Your task to perform on an android device: open app "VLC for Android" (install if not already installed) Image 0: 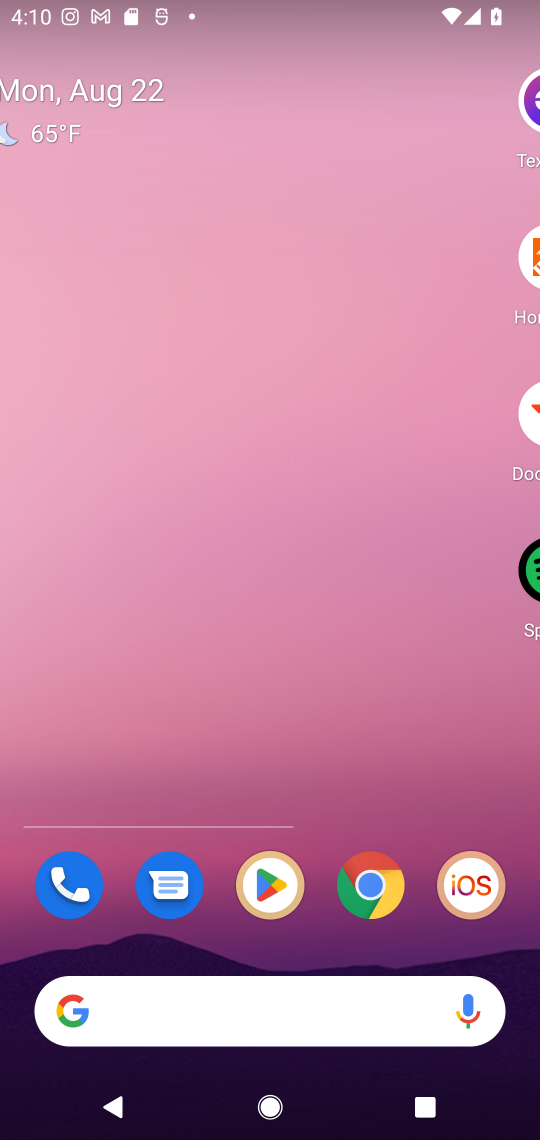
Step 0: press home button
Your task to perform on an android device: open app "VLC for Android" (install if not already installed) Image 1: 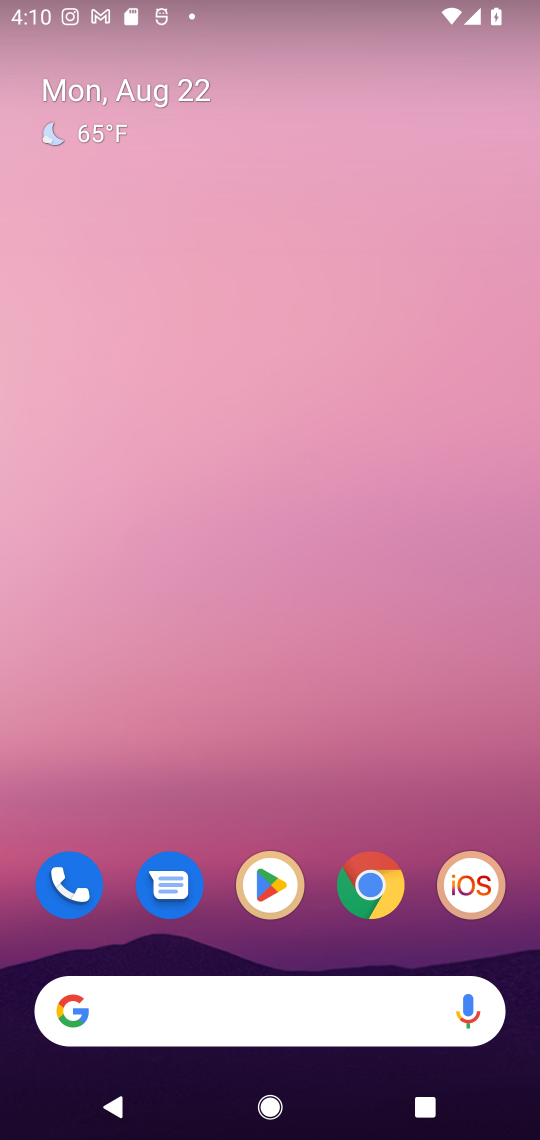
Step 1: click (263, 879)
Your task to perform on an android device: open app "VLC for Android" (install if not already installed) Image 2: 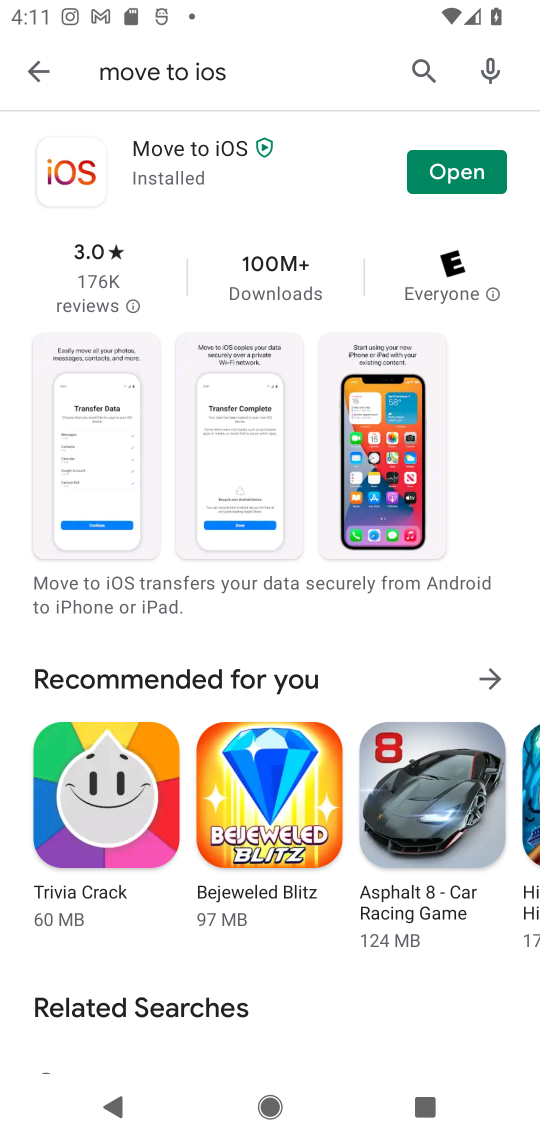
Step 2: click (421, 63)
Your task to perform on an android device: open app "VLC for Android" (install if not already installed) Image 3: 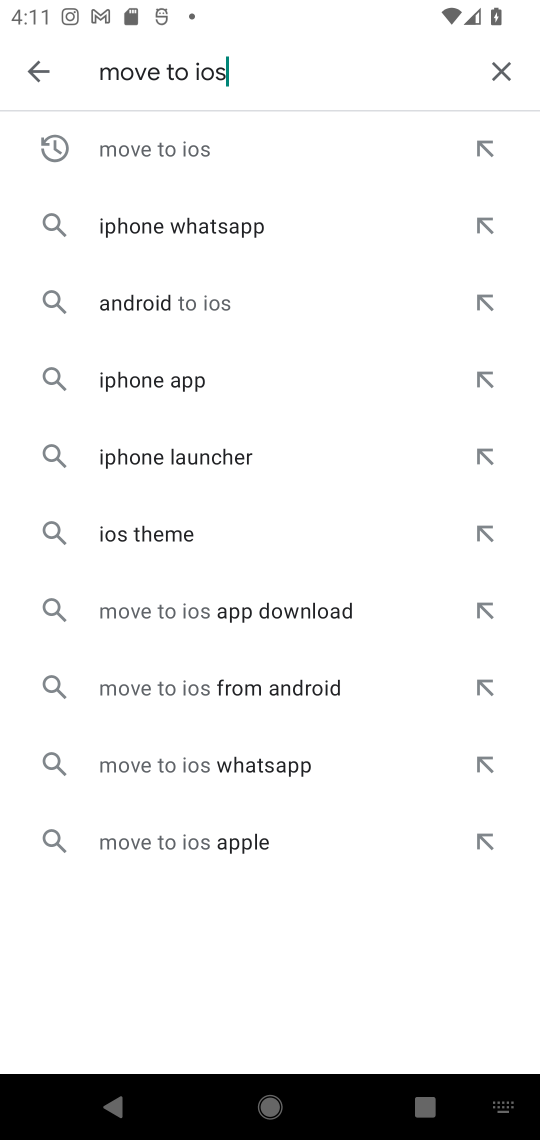
Step 3: click (500, 70)
Your task to perform on an android device: open app "VLC for Android" (install if not already installed) Image 4: 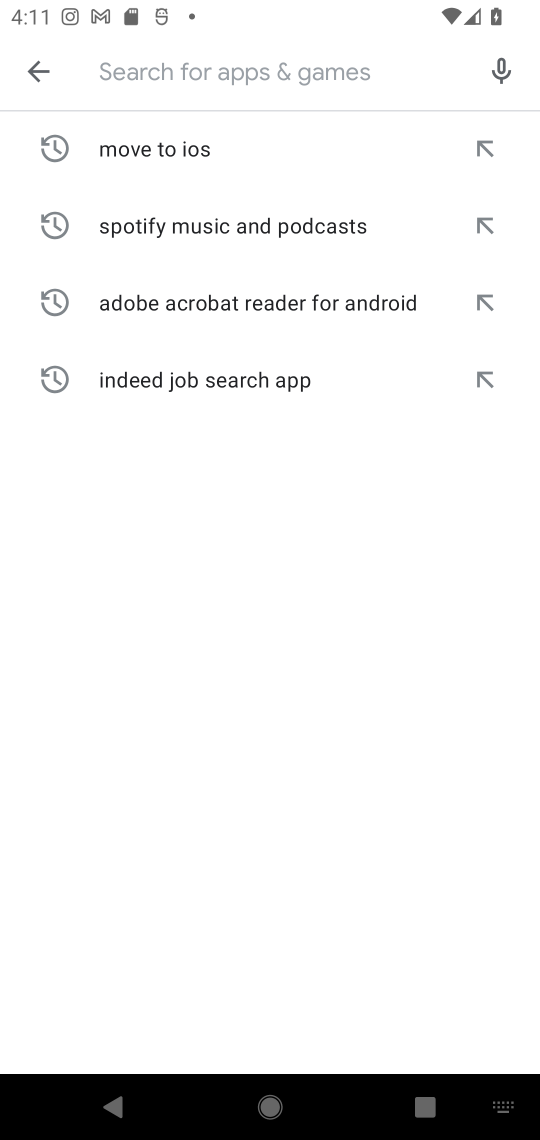
Step 4: type "VLC for Android"
Your task to perform on an android device: open app "VLC for Android" (install if not already installed) Image 5: 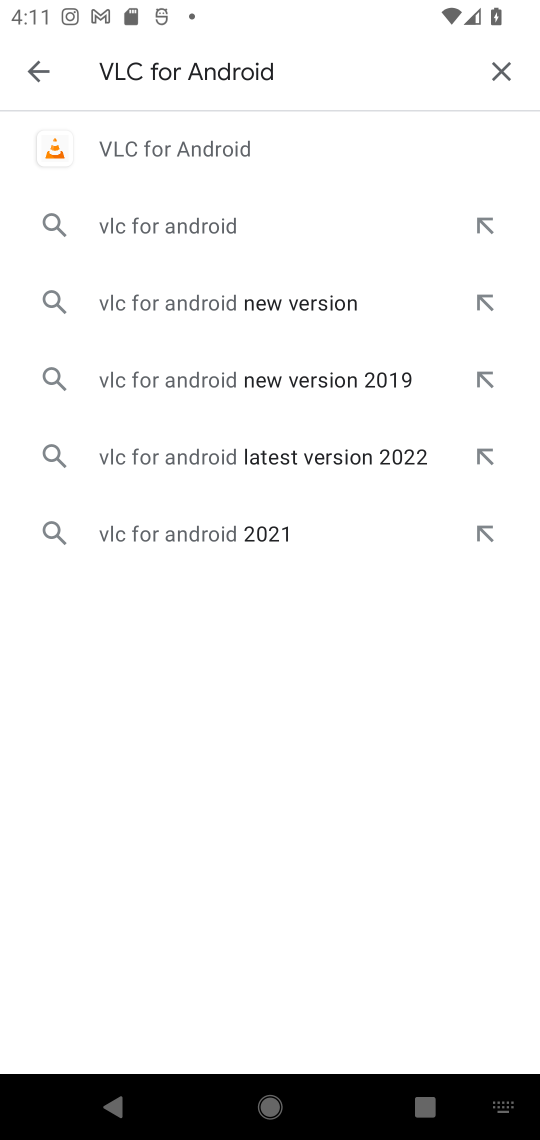
Step 5: click (258, 143)
Your task to perform on an android device: open app "VLC for Android" (install if not already installed) Image 6: 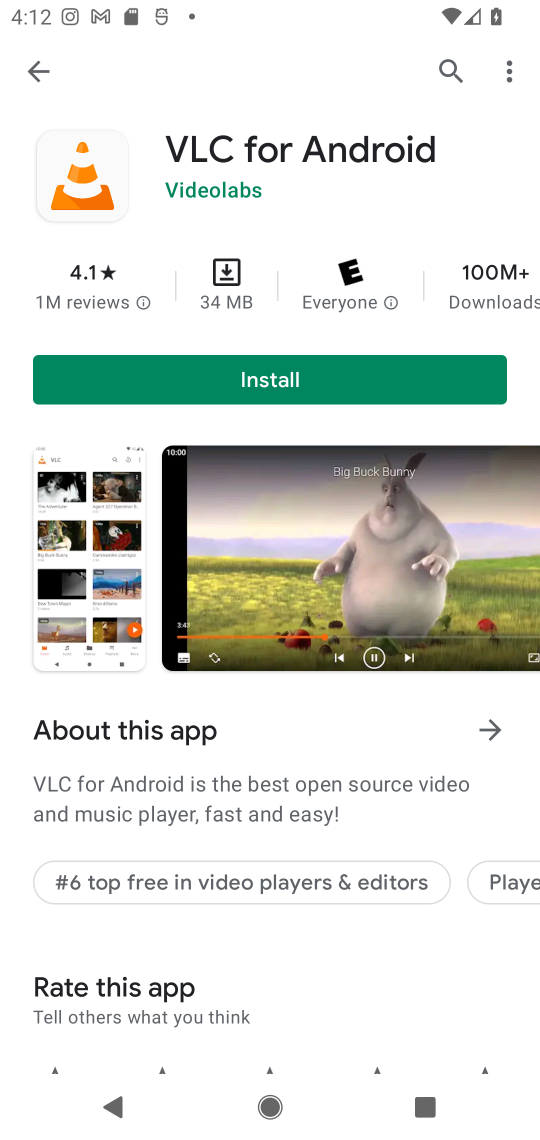
Step 6: click (267, 377)
Your task to perform on an android device: open app "VLC for Android" (install if not already installed) Image 7: 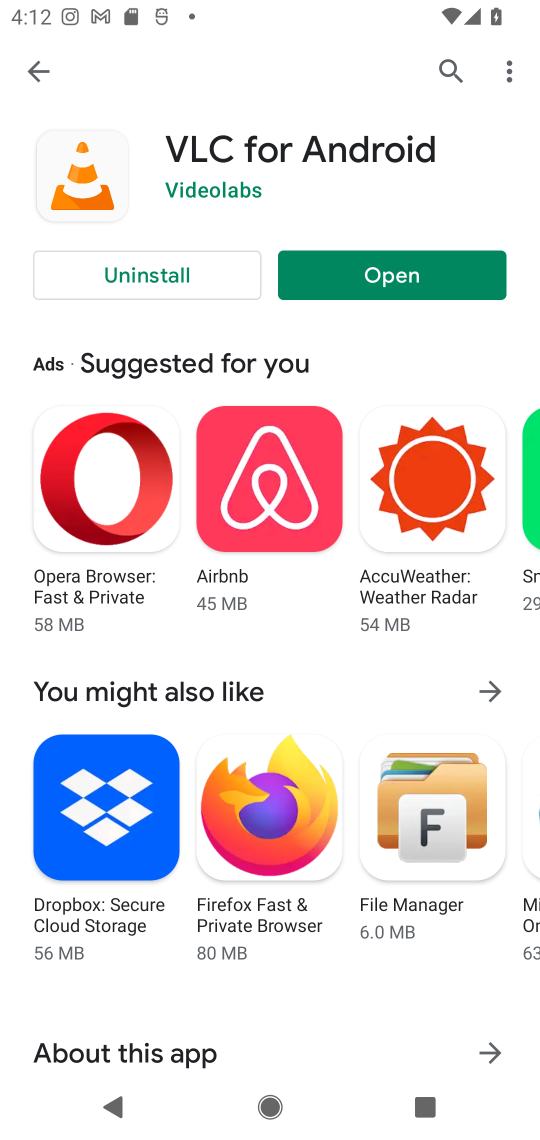
Step 7: click (400, 269)
Your task to perform on an android device: open app "VLC for Android" (install if not already installed) Image 8: 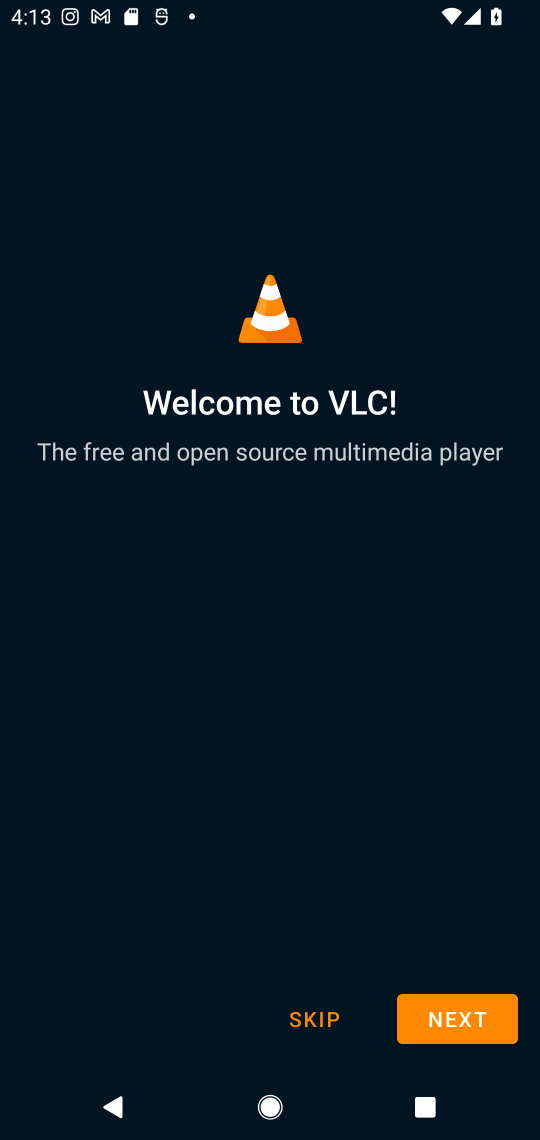
Step 8: click (331, 1013)
Your task to perform on an android device: open app "VLC for Android" (install if not already installed) Image 9: 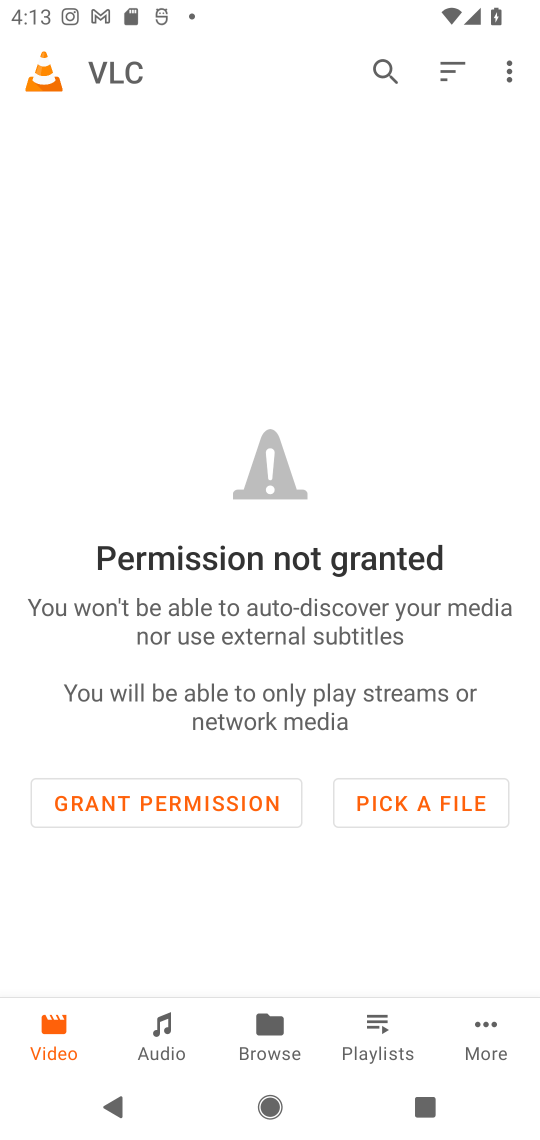
Step 9: task complete